Your task to perform on an android device: Go to accessibility settings Image 0: 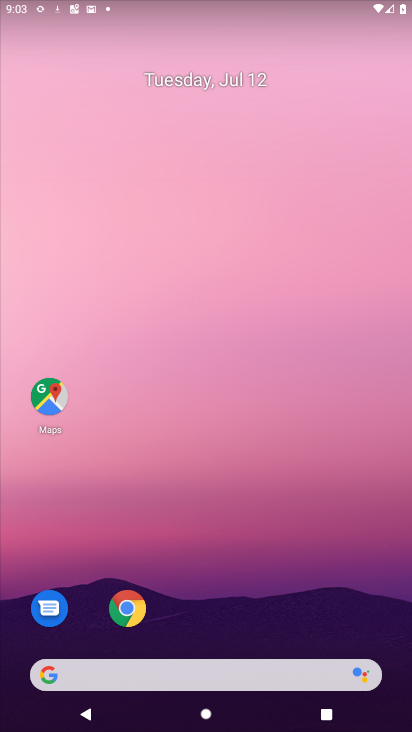
Step 0: drag from (198, 435) to (186, 36)
Your task to perform on an android device: Go to accessibility settings Image 1: 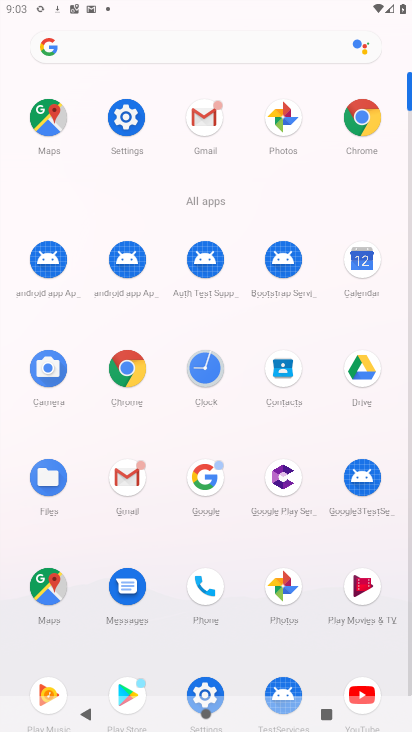
Step 1: click (120, 115)
Your task to perform on an android device: Go to accessibility settings Image 2: 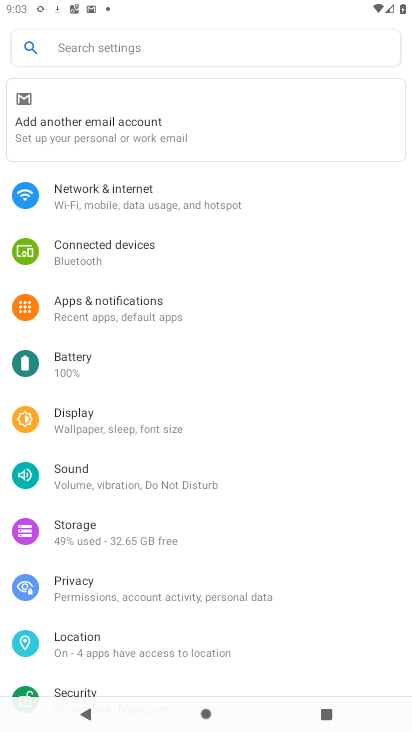
Step 2: drag from (127, 661) to (118, 113)
Your task to perform on an android device: Go to accessibility settings Image 3: 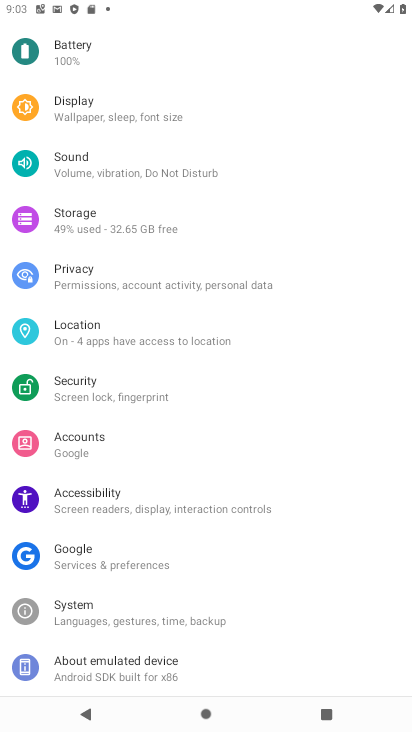
Step 3: click (117, 501)
Your task to perform on an android device: Go to accessibility settings Image 4: 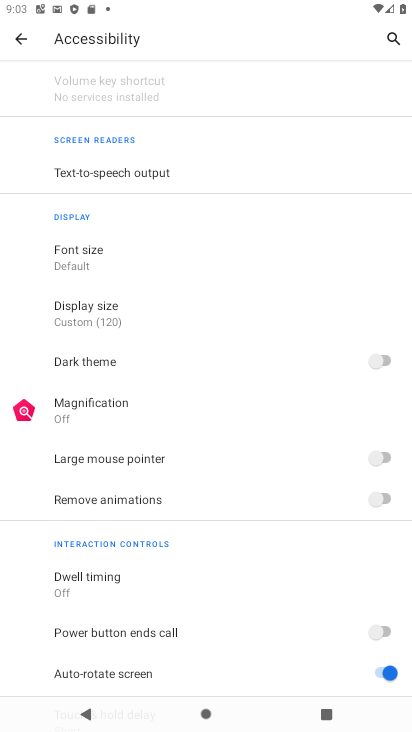
Step 4: task complete